Your task to perform on an android device: Open maps Image 0: 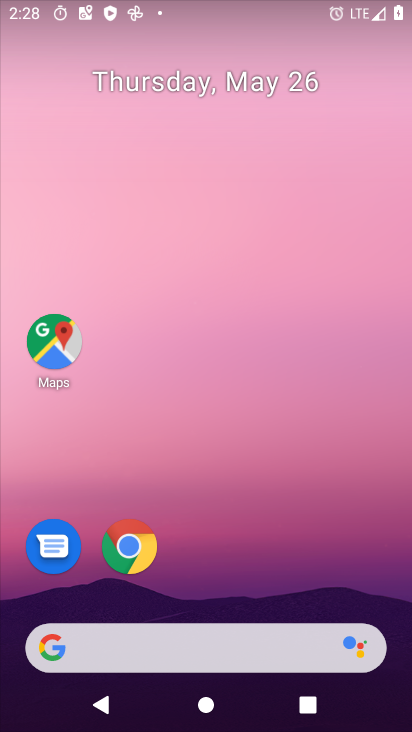
Step 0: click (66, 347)
Your task to perform on an android device: Open maps Image 1: 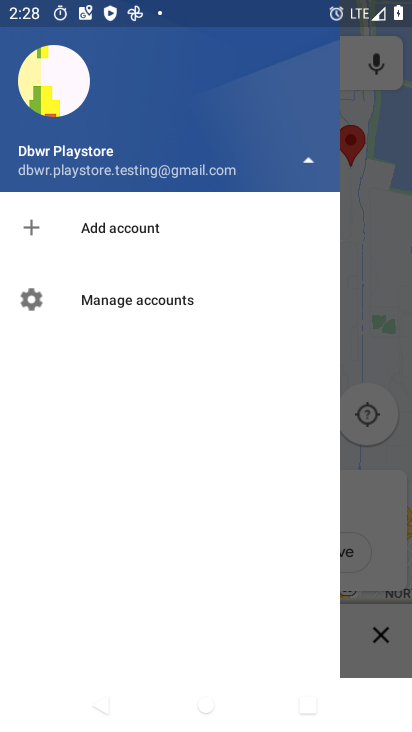
Step 1: click (390, 203)
Your task to perform on an android device: Open maps Image 2: 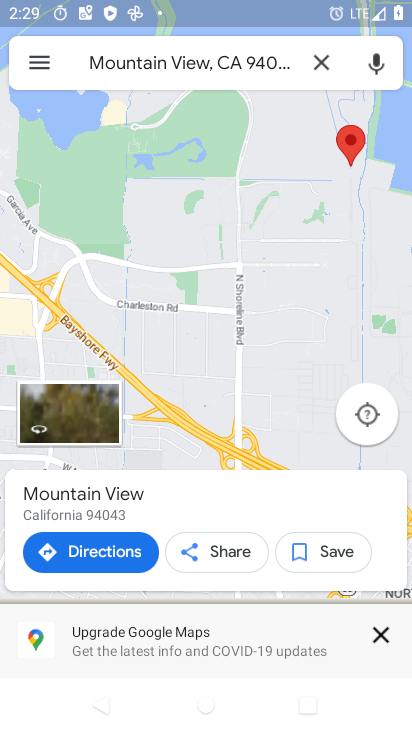
Step 2: task complete